Your task to perform on an android device: turn on the 24-hour format for clock Image 0: 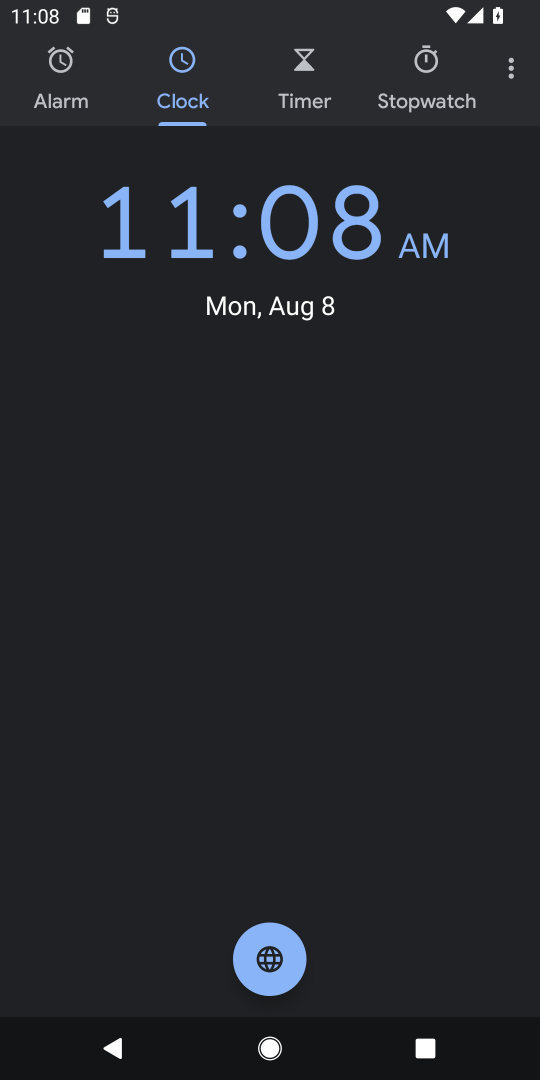
Step 0: press home button
Your task to perform on an android device: turn on the 24-hour format for clock Image 1: 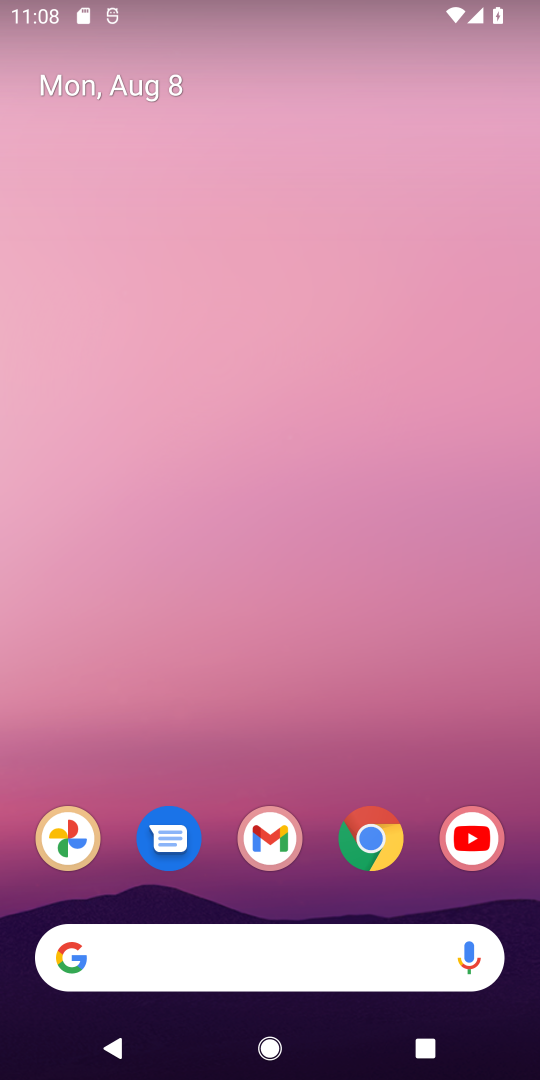
Step 1: drag from (384, 795) to (353, 170)
Your task to perform on an android device: turn on the 24-hour format for clock Image 2: 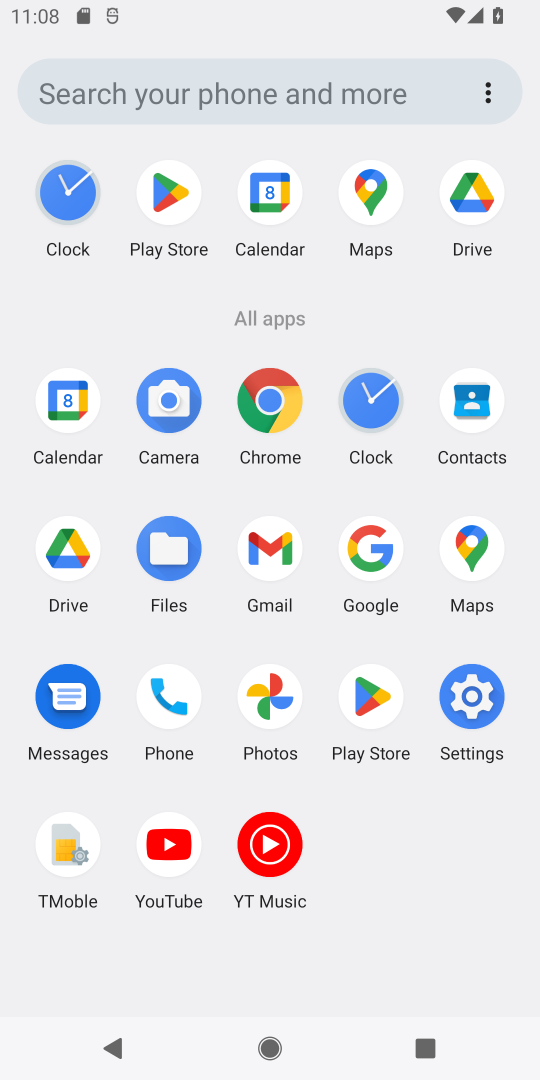
Step 2: click (385, 409)
Your task to perform on an android device: turn on the 24-hour format for clock Image 3: 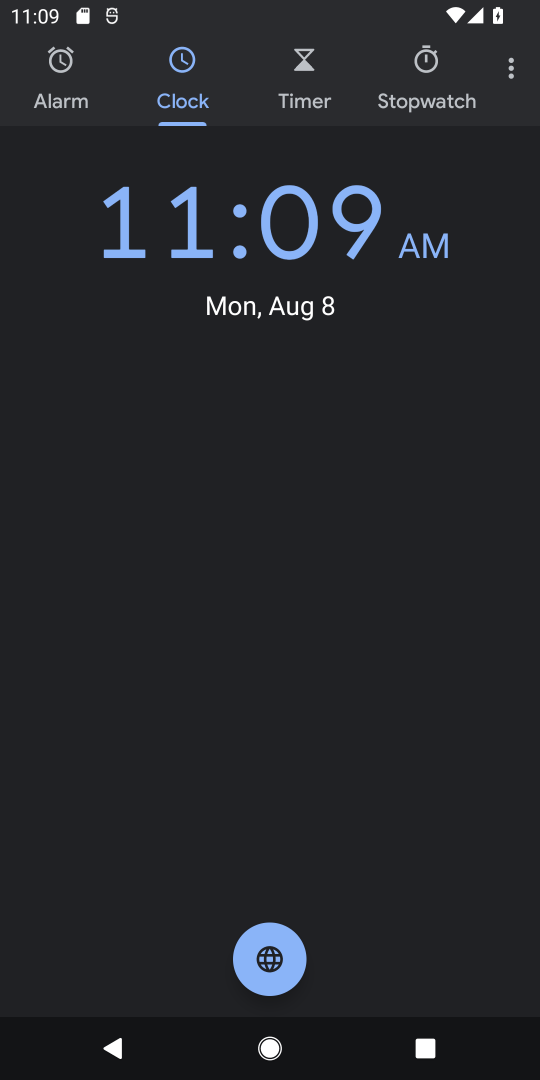
Step 3: click (512, 75)
Your task to perform on an android device: turn on the 24-hour format for clock Image 4: 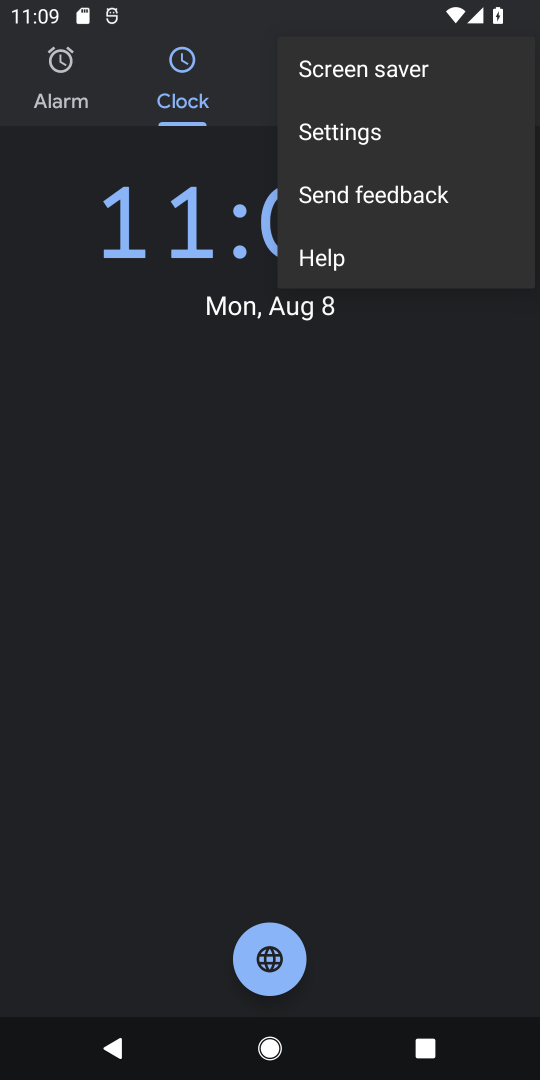
Step 4: click (388, 134)
Your task to perform on an android device: turn on the 24-hour format for clock Image 5: 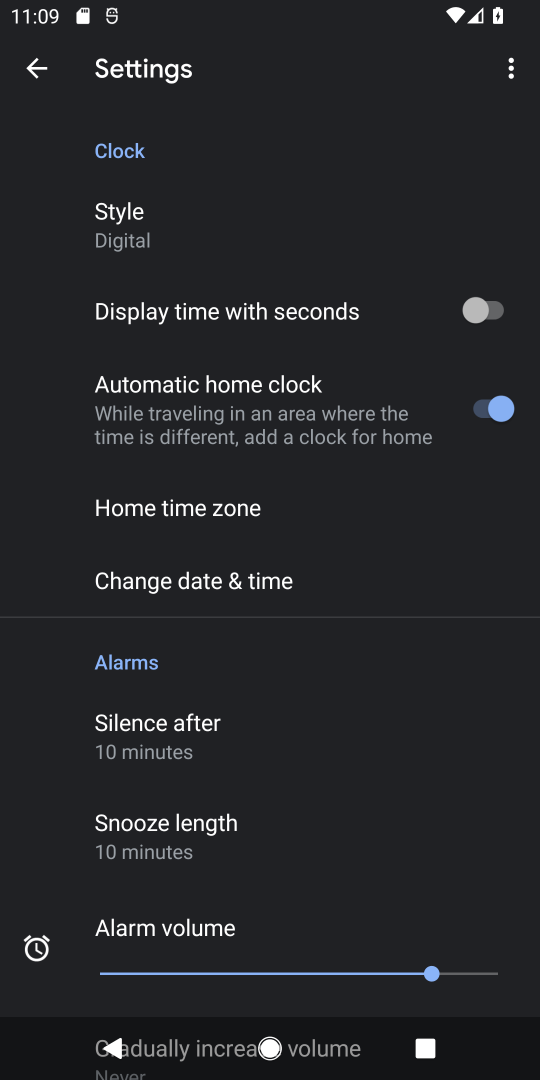
Step 5: drag from (414, 700) to (341, 362)
Your task to perform on an android device: turn on the 24-hour format for clock Image 6: 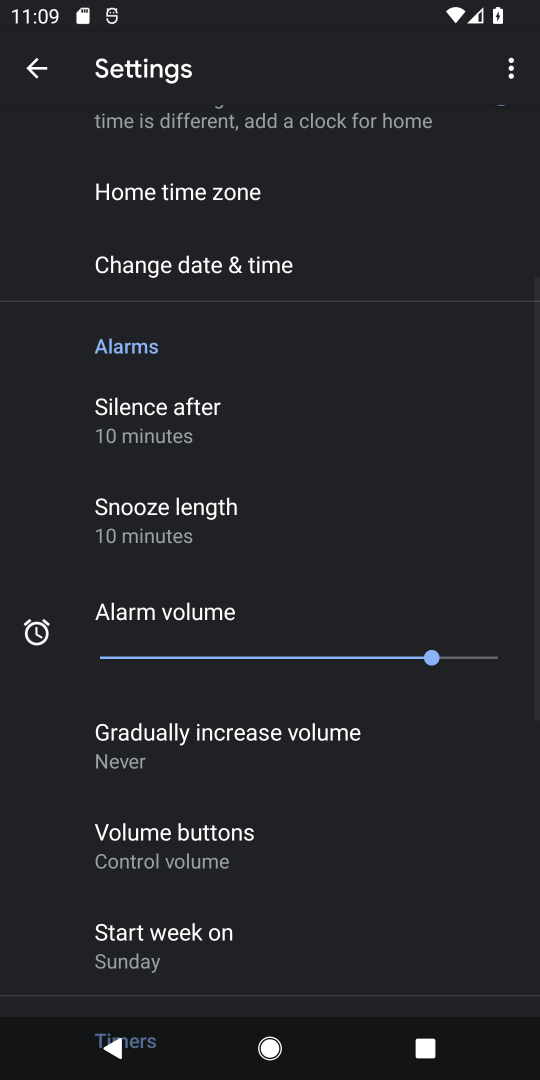
Step 6: click (240, 268)
Your task to perform on an android device: turn on the 24-hour format for clock Image 7: 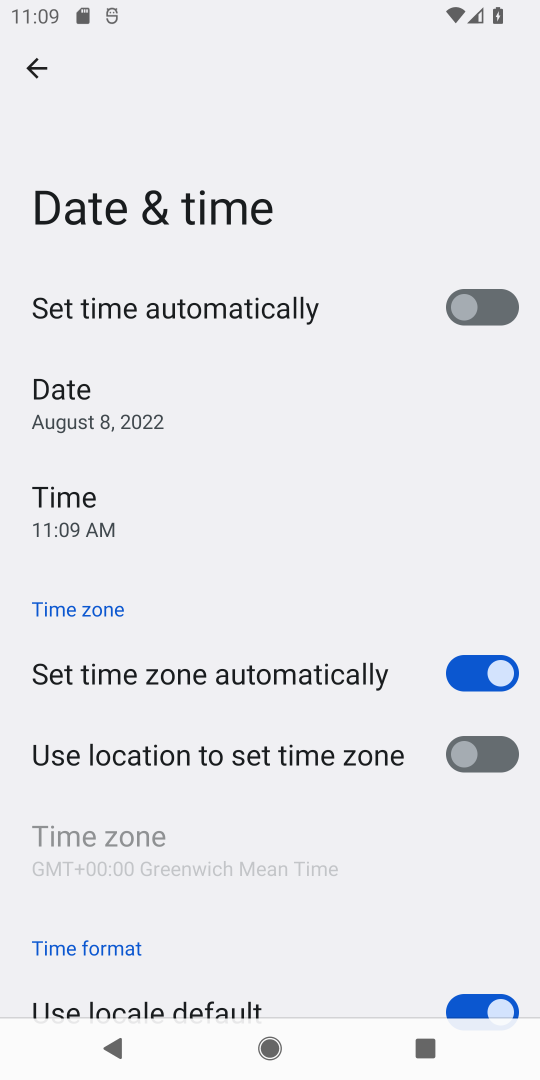
Step 7: drag from (421, 759) to (447, 78)
Your task to perform on an android device: turn on the 24-hour format for clock Image 8: 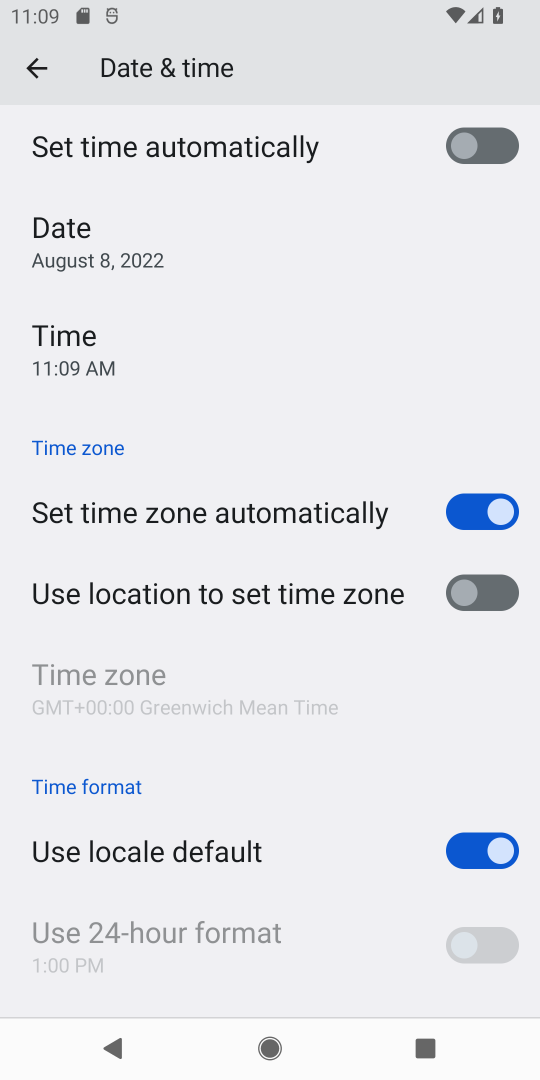
Step 8: click (478, 849)
Your task to perform on an android device: turn on the 24-hour format for clock Image 9: 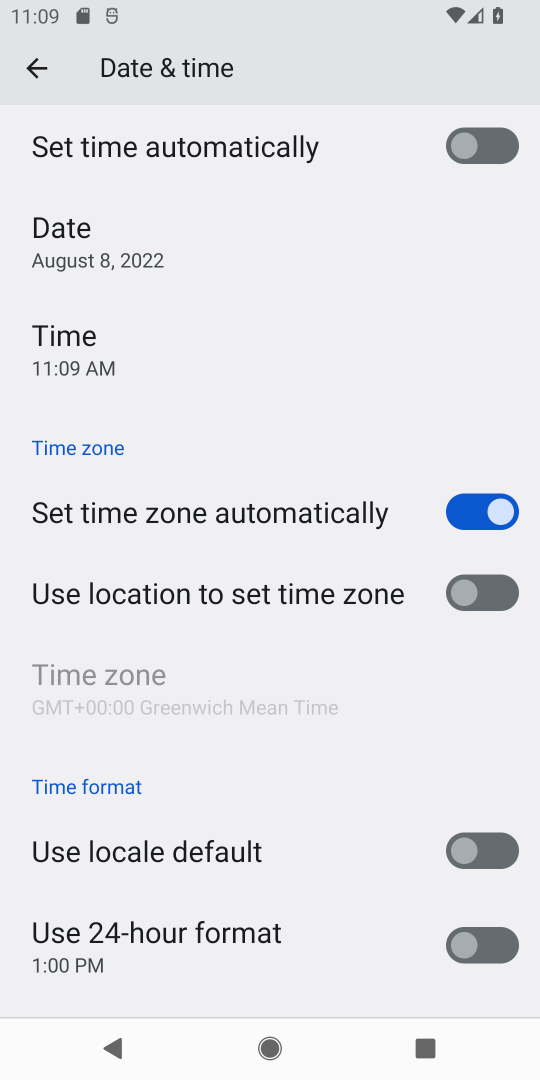
Step 9: click (485, 946)
Your task to perform on an android device: turn on the 24-hour format for clock Image 10: 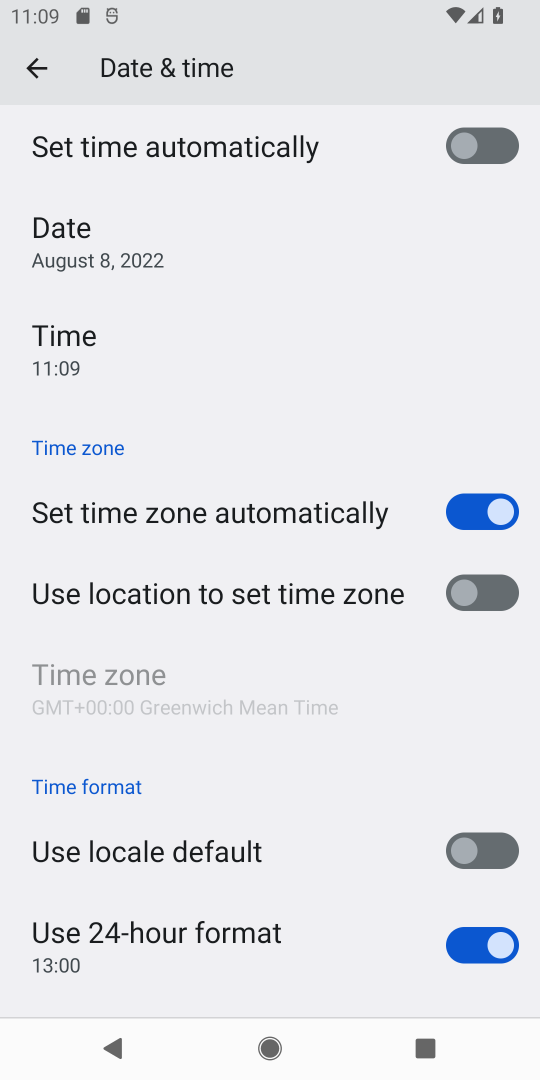
Step 10: task complete